Your task to perform on an android device: visit the assistant section in the google photos Image 0: 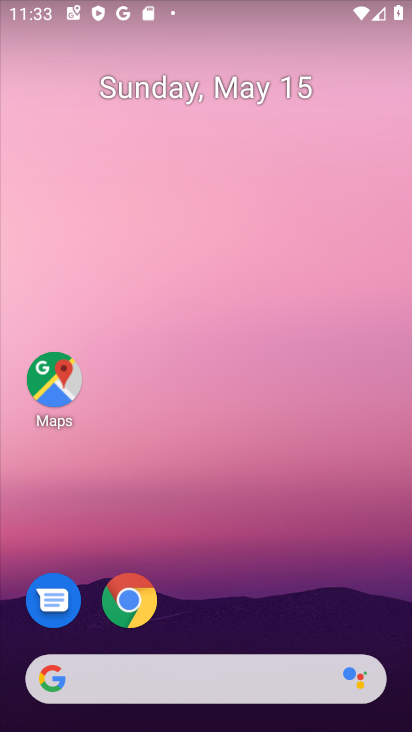
Step 0: drag from (404, 661) to (4, 162)
Your task to perform on an android device: visit the assistant section in the google photos Image 1: 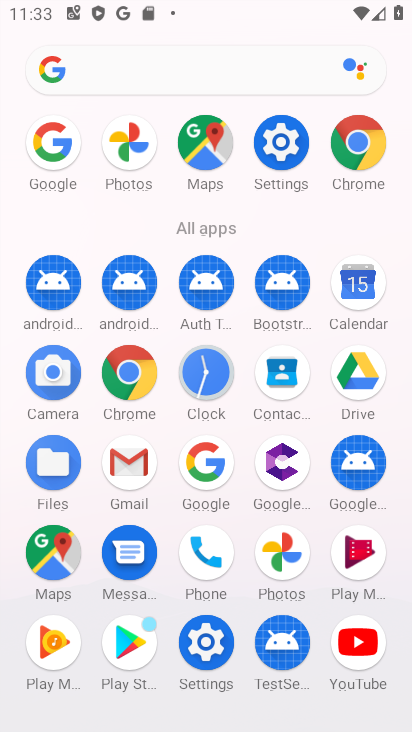
Step 1: click (130, 148)
Your task to perform on an android device: visit the assistant section in the google photos Image 2: 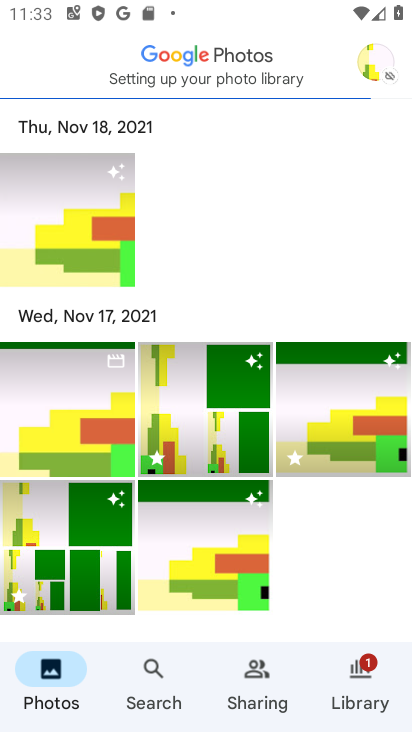
Step 2: task complete